Your task to perform on an android device: check the backup settings in the google photos Image 0: 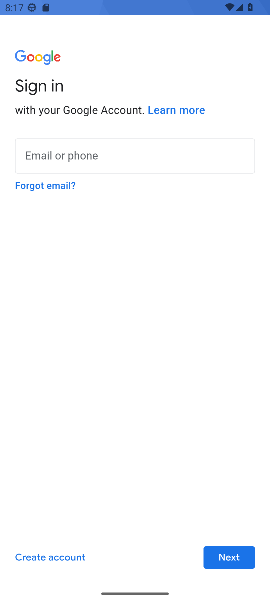
Step 0: press home button
Your task to perform on an android device: check the backup settings in the google photos Image 1: 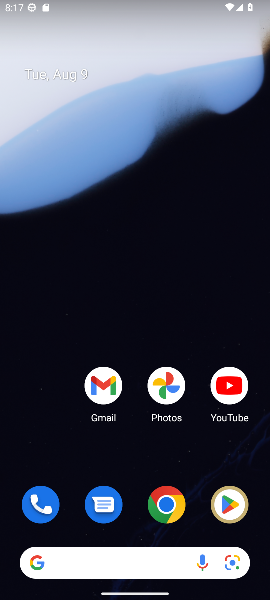
Step 1: click (166, 390)
Your task to perform on an android device: check the backup settings in the google photos Image 2: 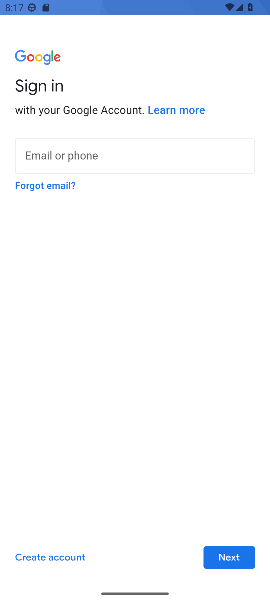
Step 2: task complete